Your task to perform on an android device: delete a single message in the gmail app Image 0: 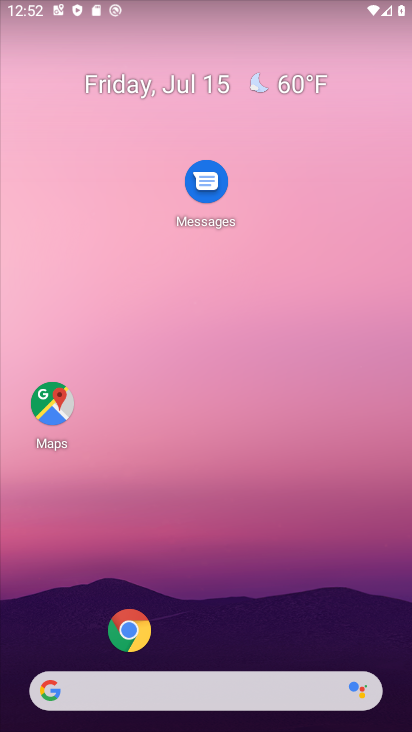
Step 0: drag from (23, 702) to (246, 64)
Your task to perform on an android device: delete a single message in the gmail app Image 1: 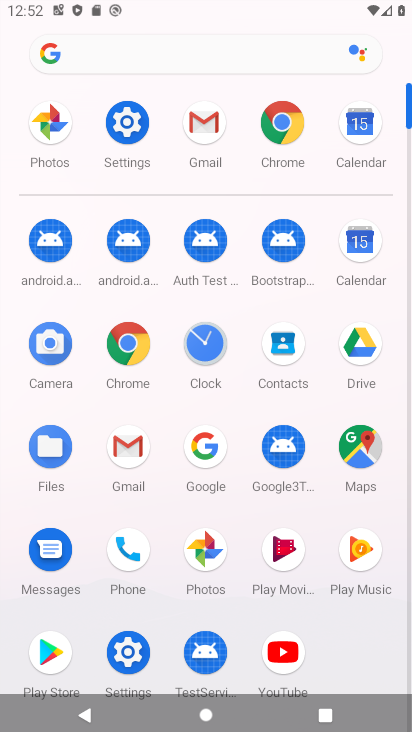
Step 1: click (145, 451)
Your task to perform on an android device: delete a single message in the gmail app Image 2: 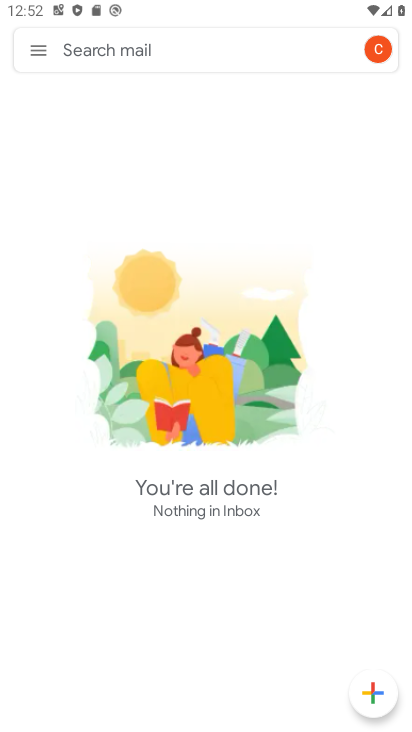
Step 2: click (53, 59)
Your task to perform on an android device: delete a single message in the gmail app Image 3: 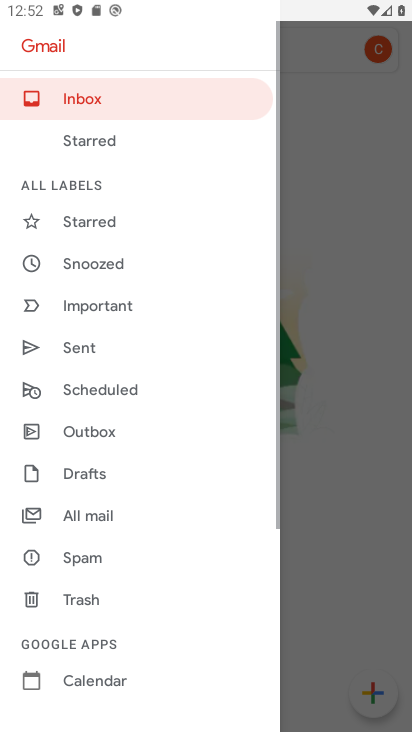
Step 3: click (130, 94)
Your task to perform on an android device: delete a single message in the gmail app Image 4: 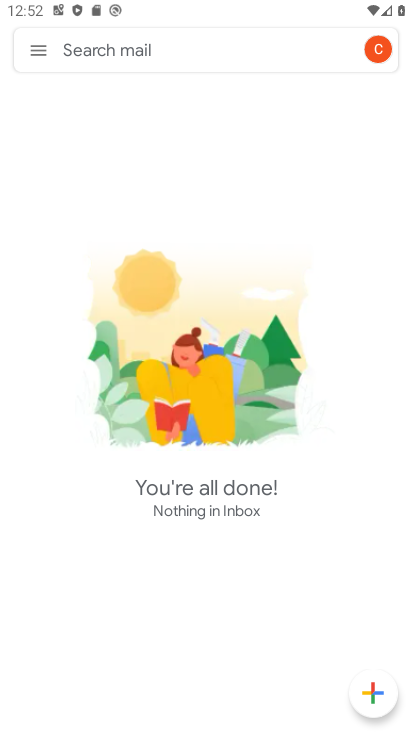
Step 4: task complete